Your task to perform on an android device: Open CNN.com Image 0: 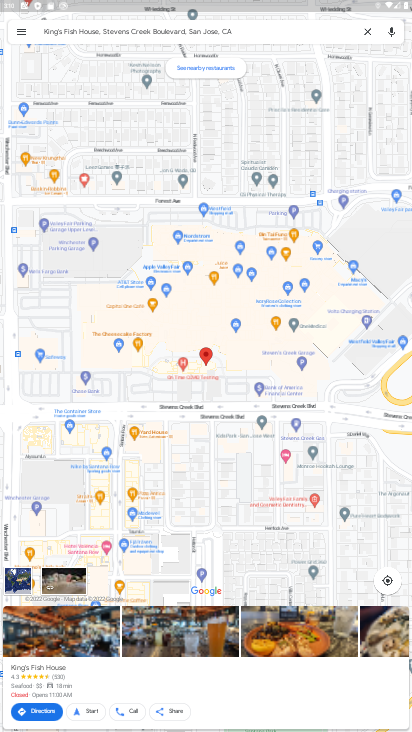
Step 0: press home button
Your task to perform on an android device: Open CNN.com Image 1: 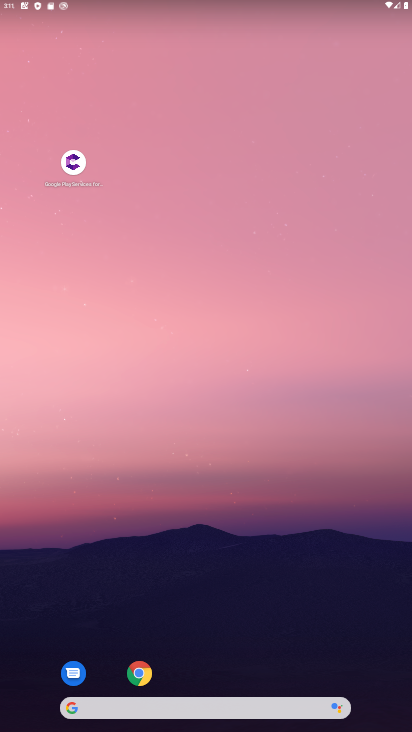
Step 1: click (141, 675)
Your task to perform on an android device: Open CNN.com Image 2: 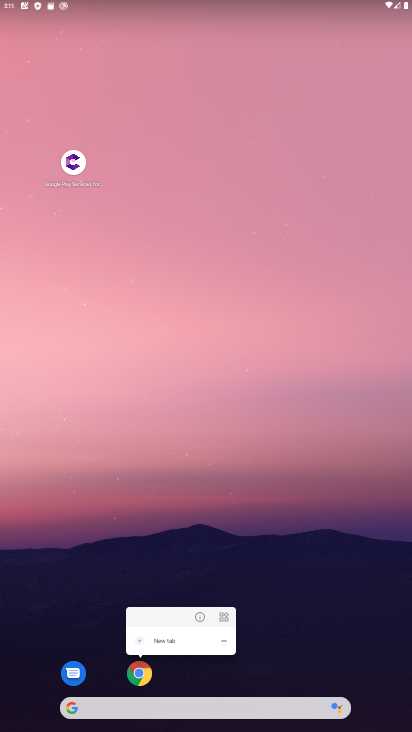
Step 2: click (144, 671)
Your task to perform on an android device: Open CNN.com Image 3: 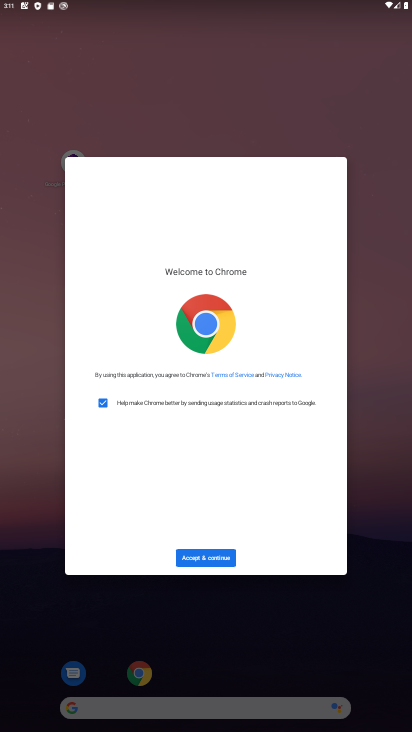
Step 3: click (219, 552)
Your task to perform on an android device: Open CNN.com Image 4: 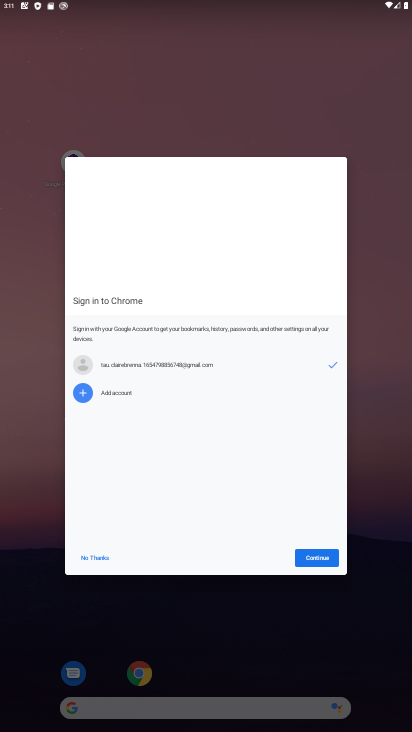
Step 4: click (312, 551)
Your task to perform on an android device: Open CNN.com Image 5: 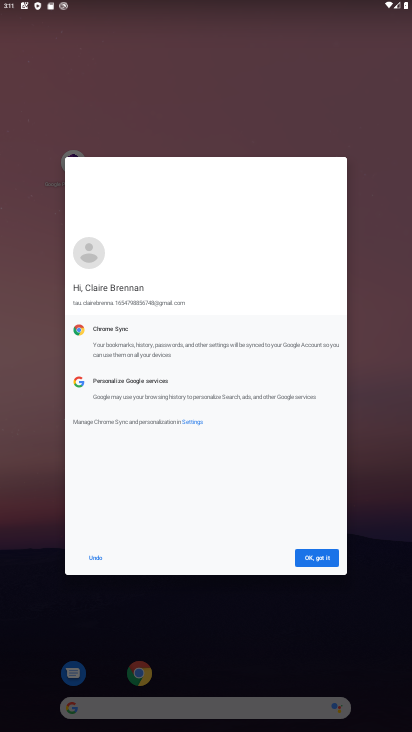
Step 5: click (308, 555)
Your task to perform on an android device: Open CNN.com Image 6: 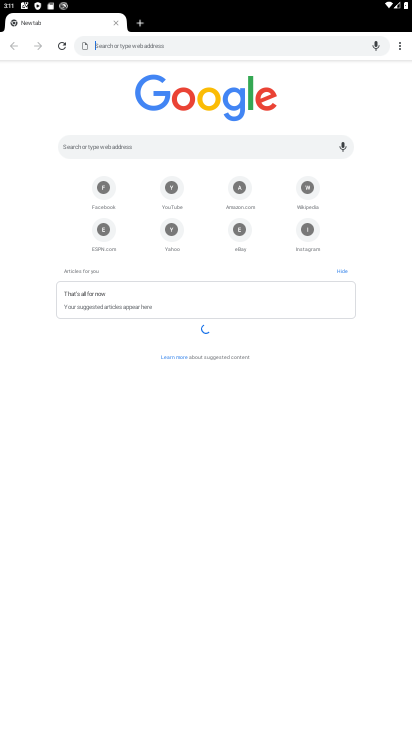
Step 6: click (201, 142)
Your task to perform on an android device: Open CNN.com Image 7: 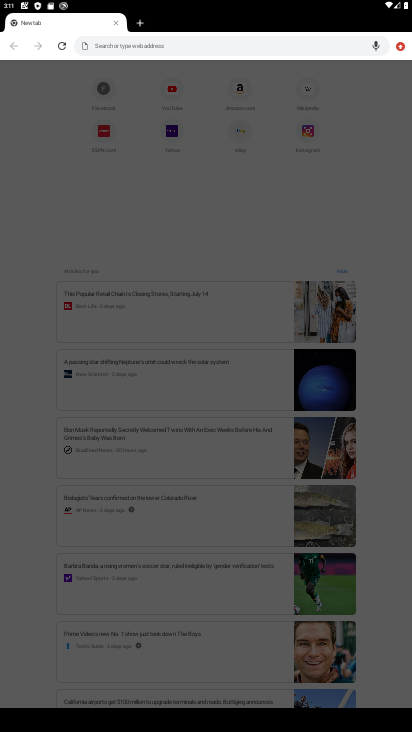
Step 7: type "CNN.com"
Your task to perform on an android device: Open CNN.com Image 8: 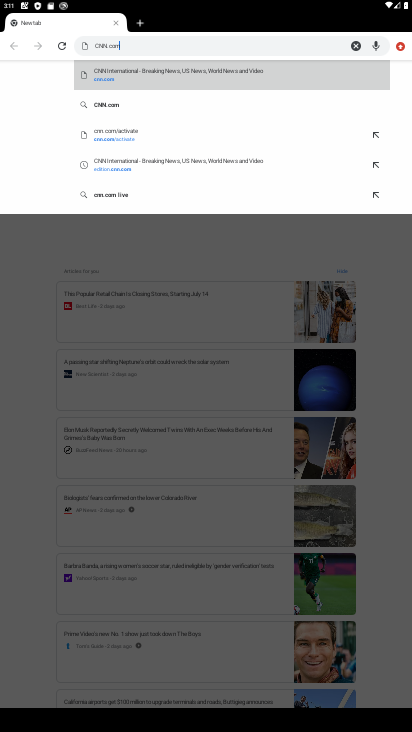
Step 8: click (126, 81)
Your task to perform on an android device: Open CNN.com Image 9: 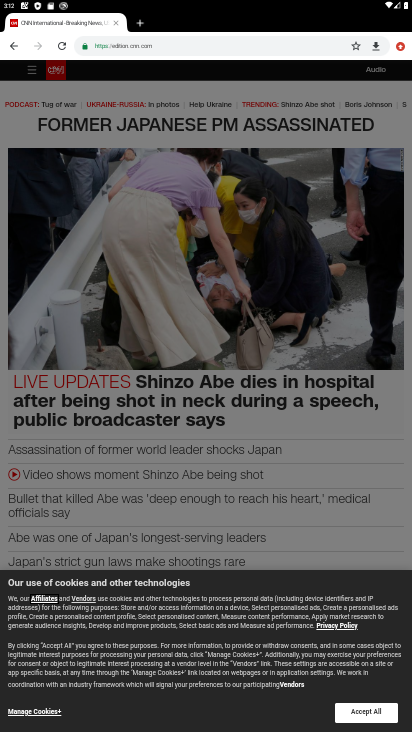
Step 9: task complete